Your task to perform on an android device: set the timer Image 0: 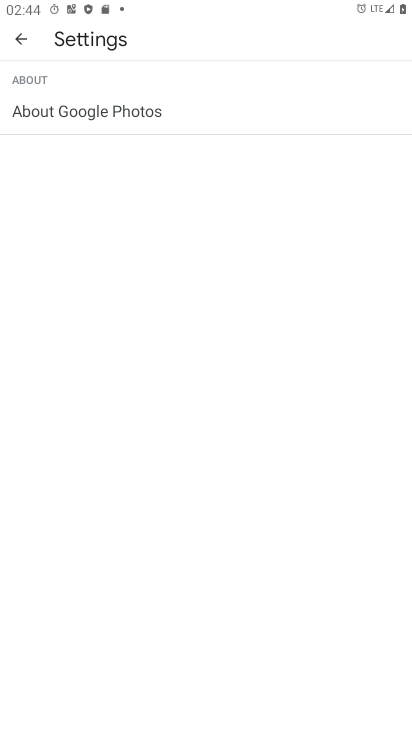
Step 0: press home button
Your task to perform on an android device: set the timer Image 1: 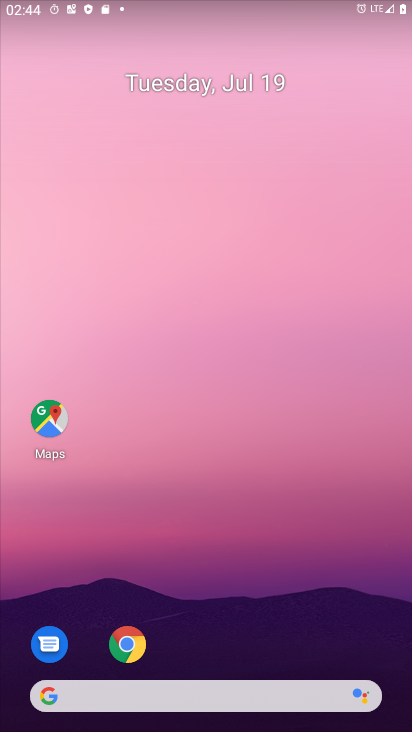
Step 1: drag from (241, 656) to (241, 179)
Your task to perform on an android device: set the timer Image 2: 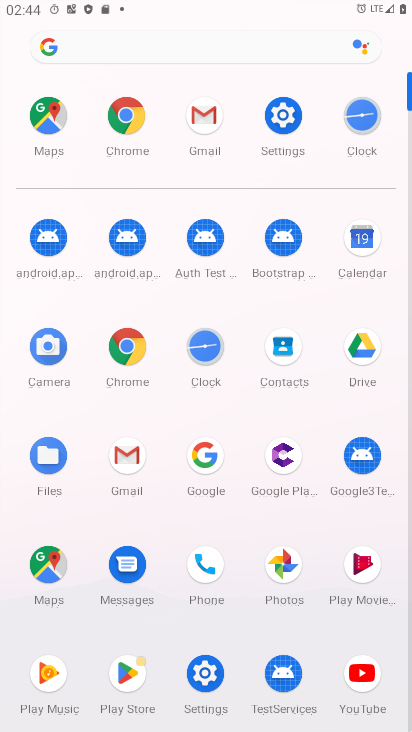
Step 2: click (201, 350)
Your task to perform on an android device: set the timer Image 3: 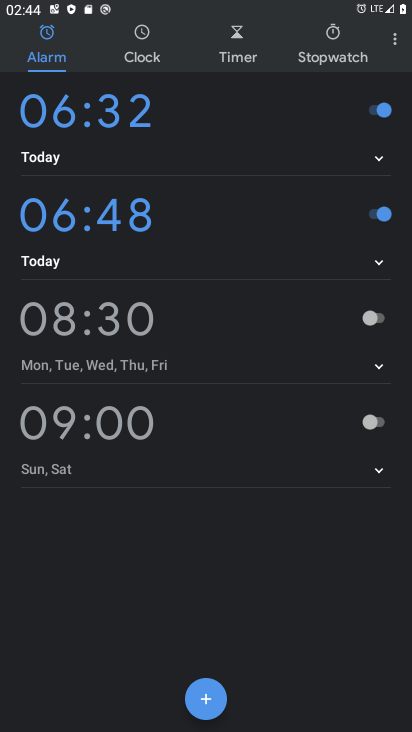
Step 3: click (240, 50)
Your task to perform on an android device: set the timer Image 4: 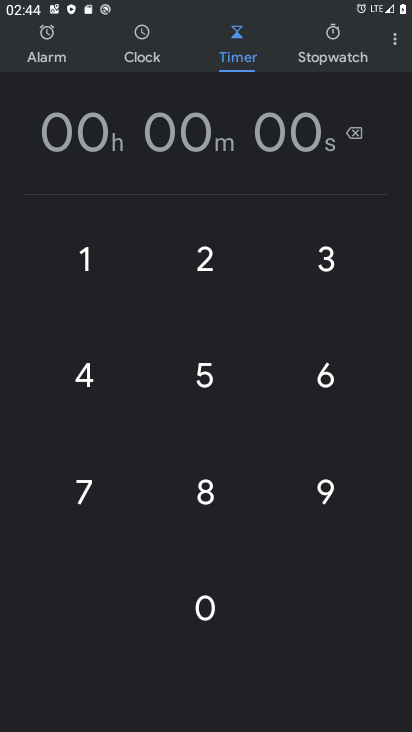
Step 4: click (201, 261)
Your task to perform on an android device: set the timer Image 5: 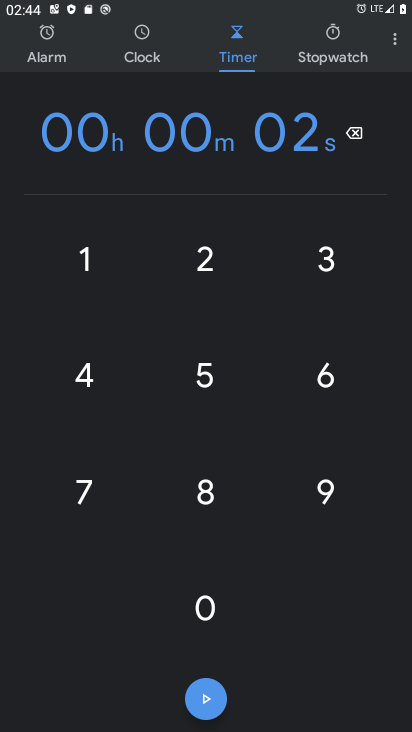
Step 5: click (202, 395)
Your task to perform on an android device: set the timer Image 6: 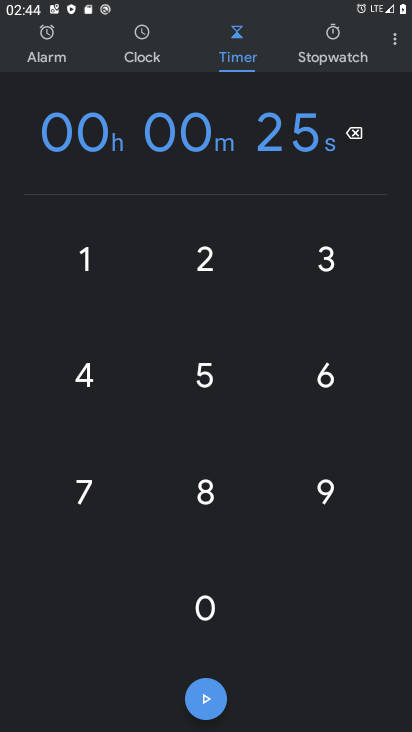
Step 6: click (208, 698)
Your task to perform on an android device: set the timer Image 7: 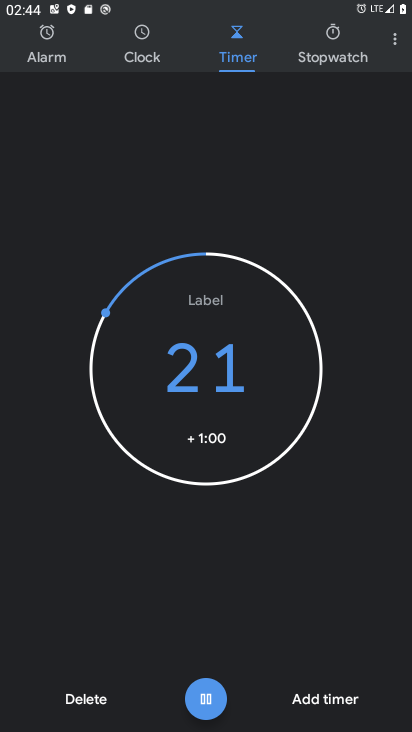
Step 7: task complete